Your task to perform on an android device: Show me popular videos on Youtube Image 0: 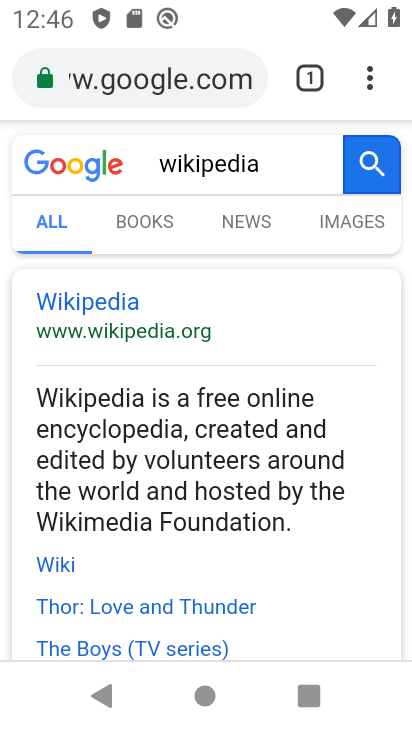
Step 0: press home button
Your task to perform on an android device: Show me popular videos on Youtube Image 1: 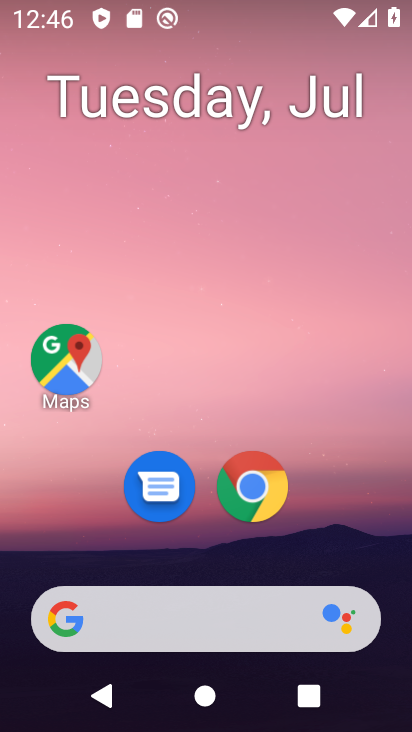
Step 1: drag from (384, 549) to (392, 90)
Your task to perform on an android device: Show me popular videos on Youtube Image 2: 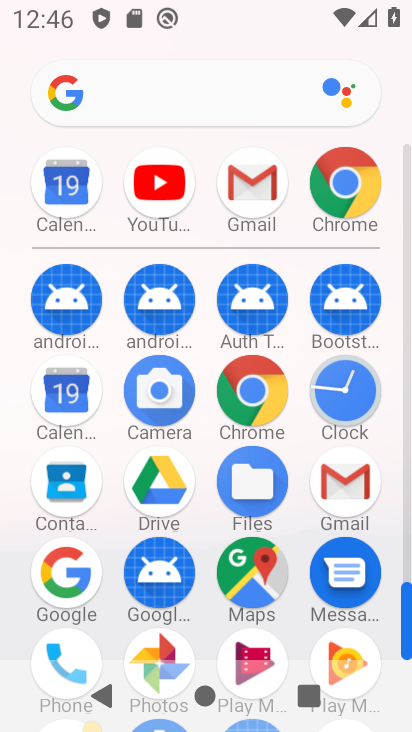
Step 2: click (158, 195)
Your task to perform on an android device: Show me popular videos on Youtube Image 3: 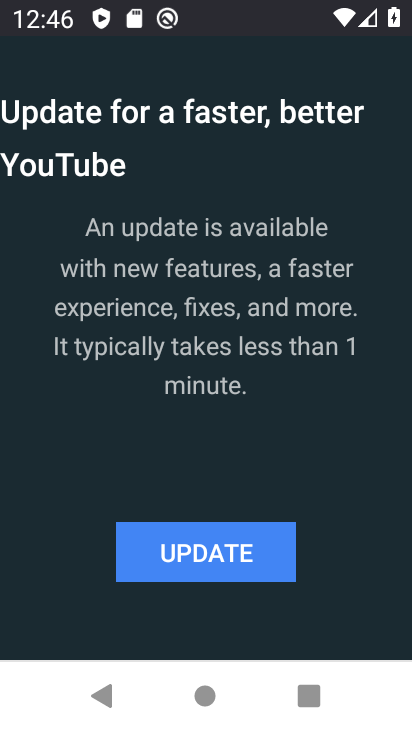
Step 3: click (214, 568)
Your task to perform on an android device: Show me popular videos on Youtube Image 4: 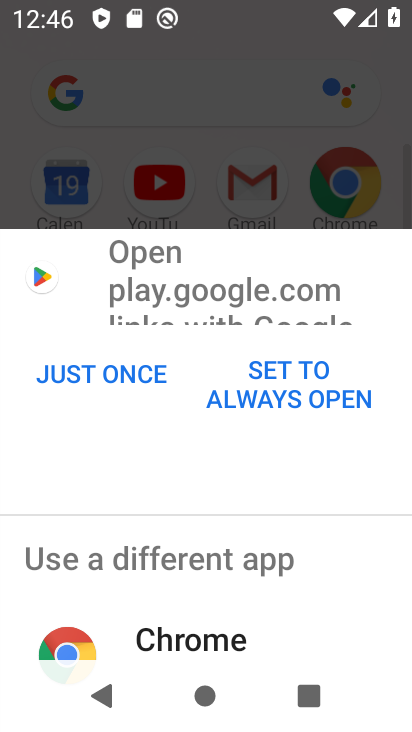
Step 4: click (139, 376)
Your task to perform on an android device: Show me popular videos on Youtube Image 5: 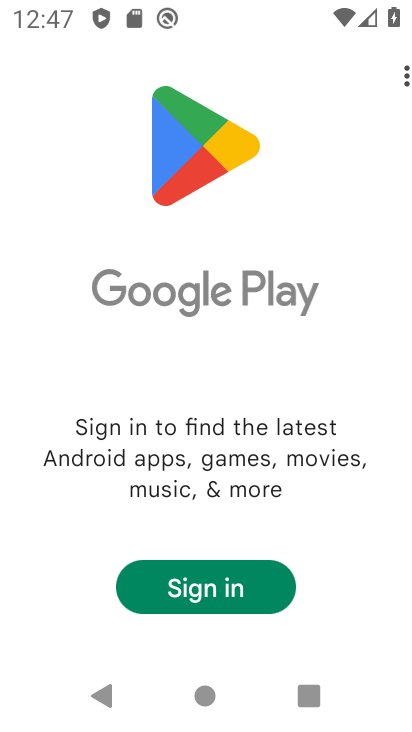
Step 5: task complete